Your task to perform on an android device: Open Google Chrome and click the shortcut for Amazon.com Image 0: 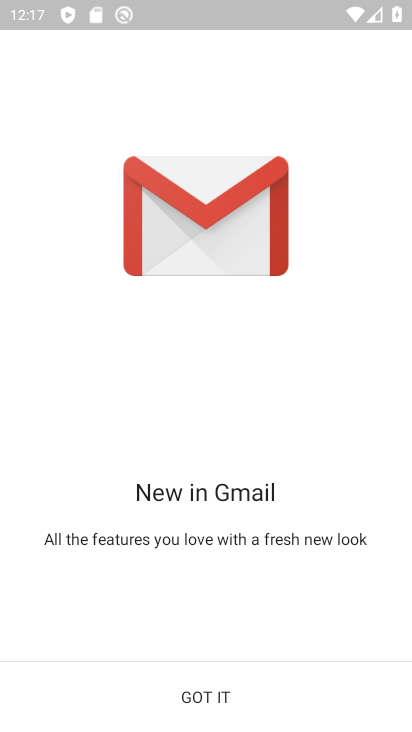
Step 0: click (204, 701)
Your task to perform on an android device: Open Google Chrome and click the shortcut for Amazon.com Image 1: 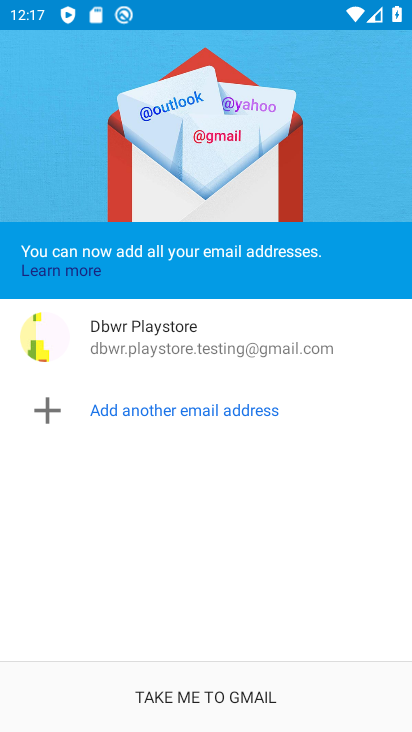
Step 1: click (214, 690)
Your task to perform on an android device: Open Google Chrome and click the shortcut for Amazon.com Image 2: 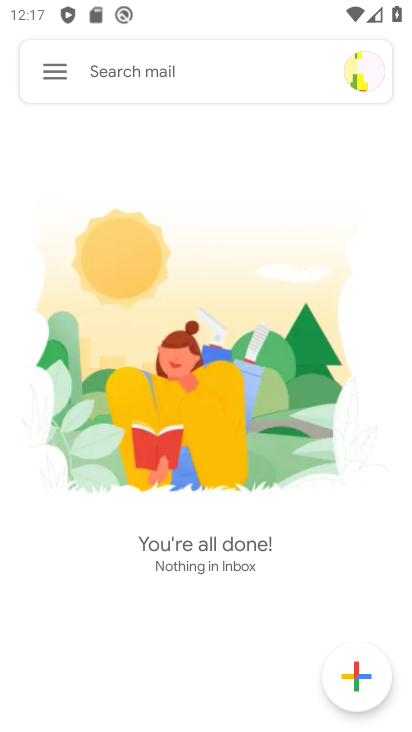
Step 2: press home button
Your task to perform on an android device: Open Google Chrome and click the shortcut for Amazon.com Image 3: 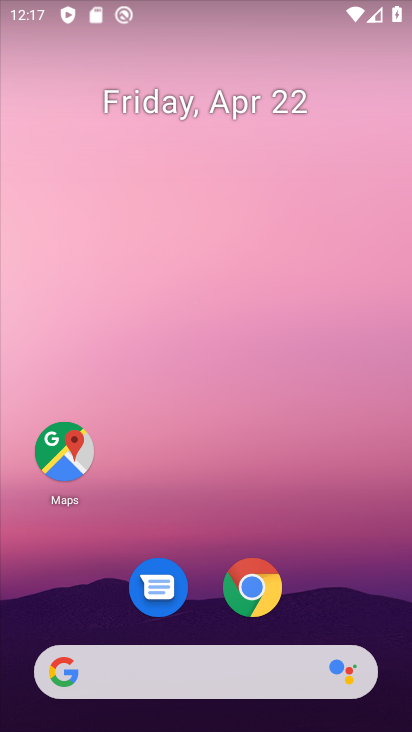
Step 3: drag from (329, 567) to (363, 47)
Your task to perform on an android device: Open Google Chrome and click the shortcut for Amazon.com Image 4: 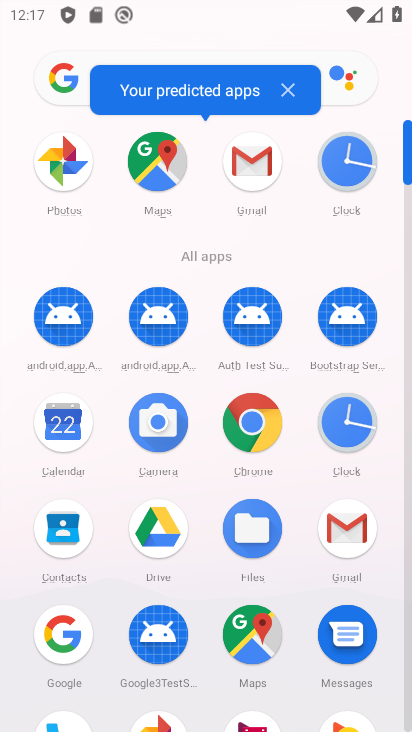
Step 4: click (239, 418)
Your task to perform on an android device: Open Google Chrome and click the shortcut for Amazon.com Image 5: 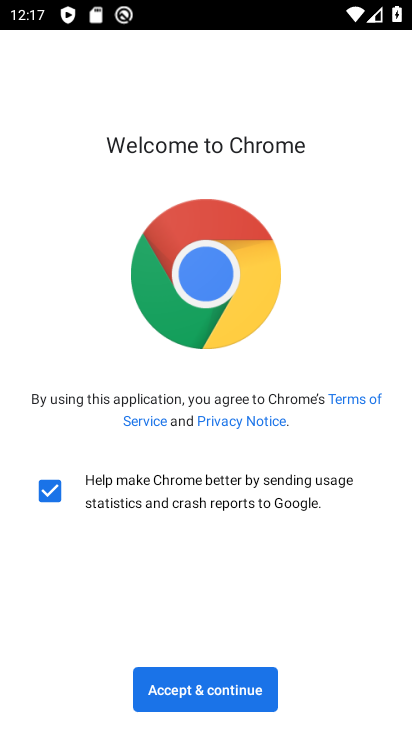
Step 5: click (258, 685)
Your task to perform on an android device: Open Google Chrome and click the shortcut for Amazon.com Image 6: 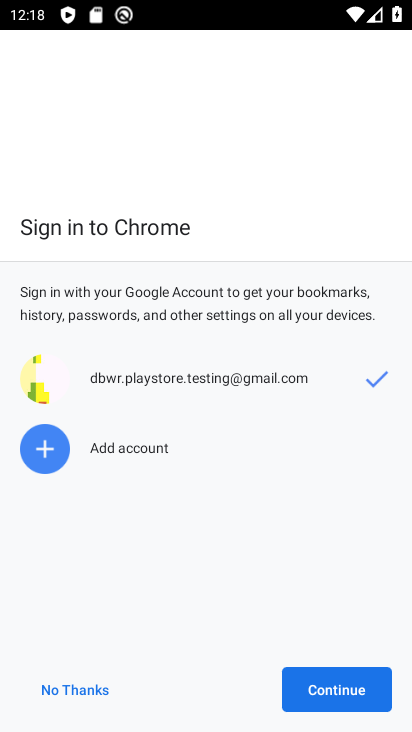
Step 6: click (299, 685)
Your task to perform on an android device: Open Google Chrome and click the shortcut for Amazon.com Image 7: 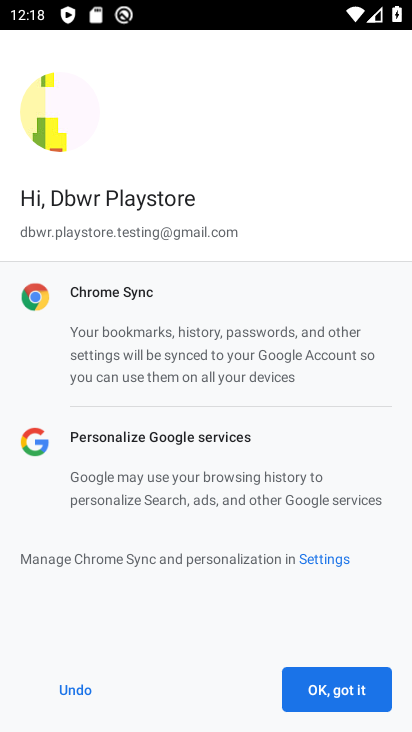
Step 7: click (318, 683)
Your task to perform on an android device: Open Google Chrome and click the shortcut for Amazon.com Image 8: 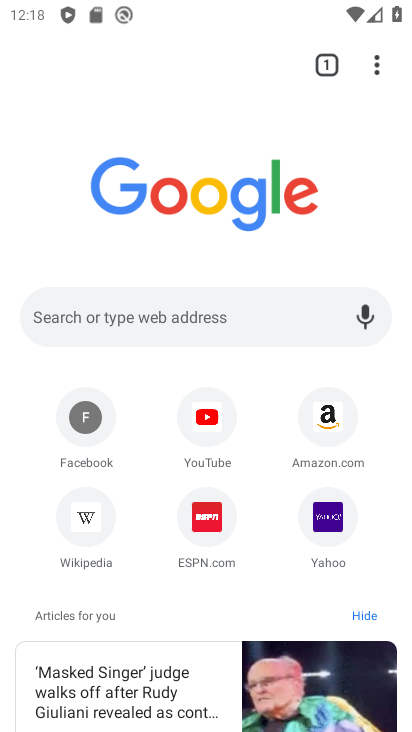
Step 8: click (326, 416)
Your task to perform on an android device: Open Google Chrome and click the shortcut for Amazon.com Image 9: 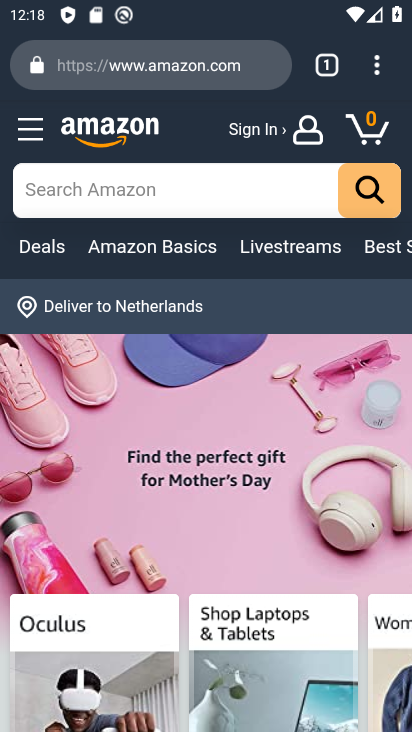
Step 9: task complete